Your task to perform on an android device: turn on airplane mode Image 0: 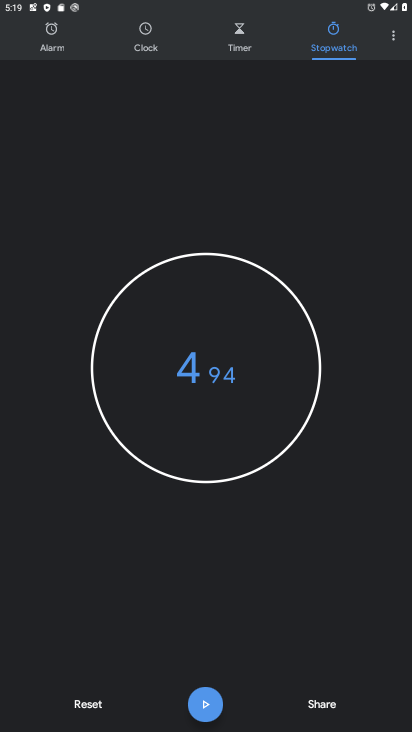
Step 0: press home button
Your task to perform on an android device: turn on airplane mode Image 1: 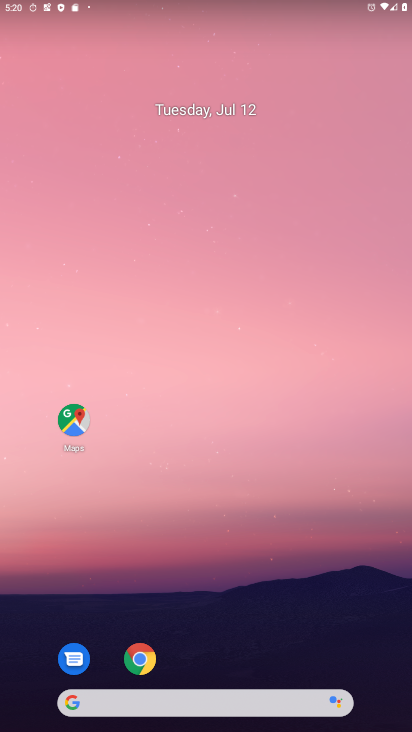
Step 1: drag from (193, 408) to (239, 13)
Your task to perform on an android device: turn on airplane mode Image 2: 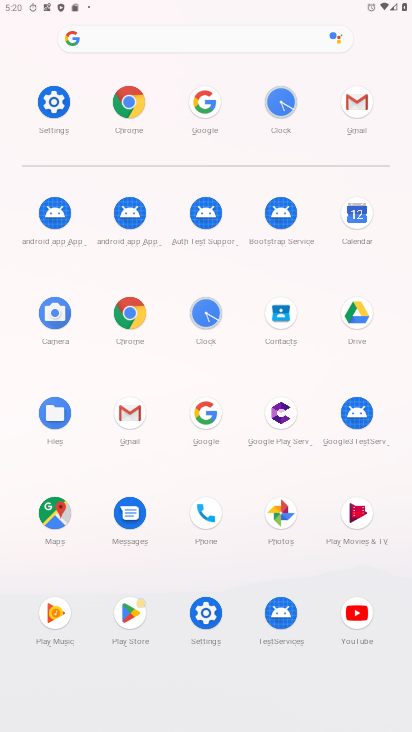
Step 2: click (58, 106)
Your task to perform on an android device: turn on airplane mode Image 3: 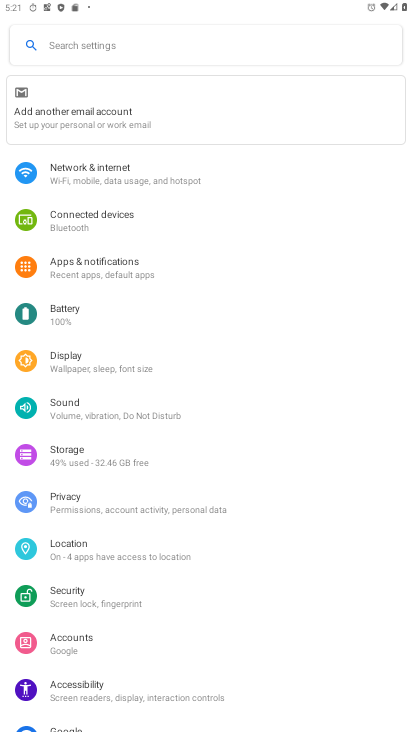
Step 3: click (58, 164)
Your task to perform on an android device: turn on airplane mode Image 4: 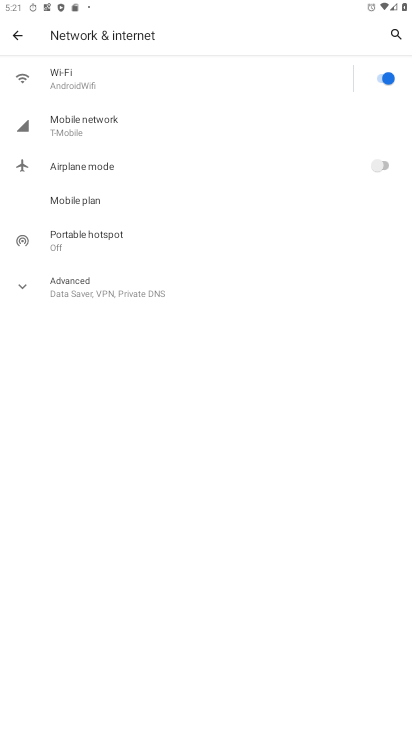
Step 4: click (386, 167)
Your task to perform on an android device: turn on airplane mode Image 5: 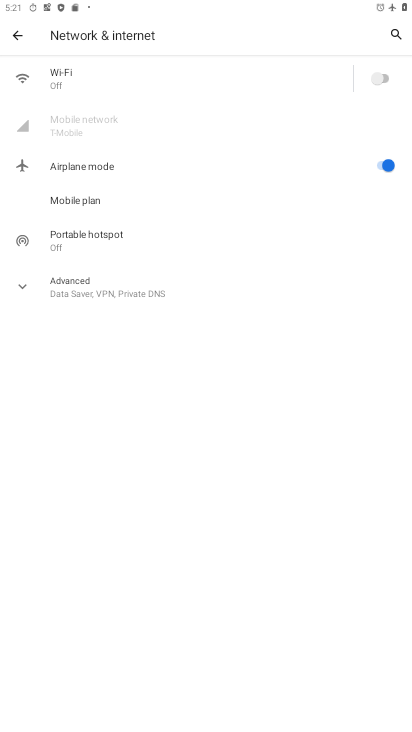
Step 5: task complete